Your task to perform on an android device: Open maps Image 0: 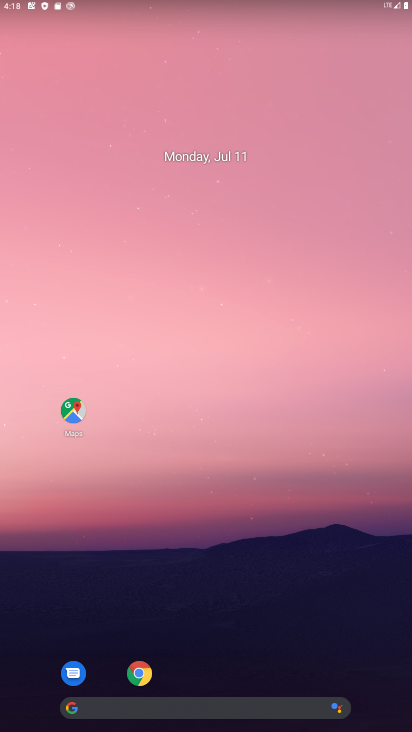
Step 0: click (71, 411)
Your task to perform on an android device: Open maps Image 1: 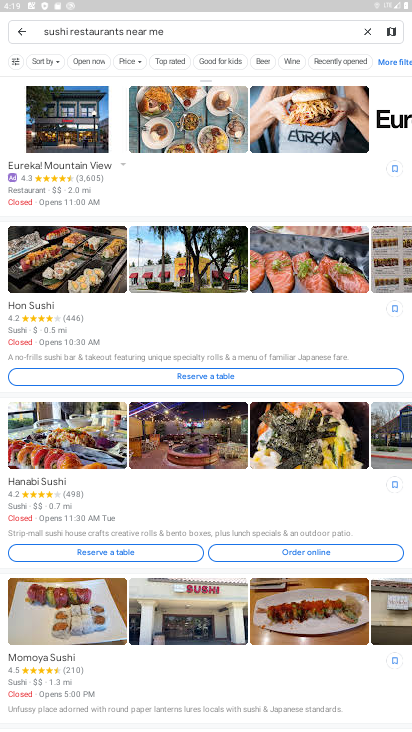
Step 1: click (369, 29)
Your task to perform on an android device: Open maps Image 2: 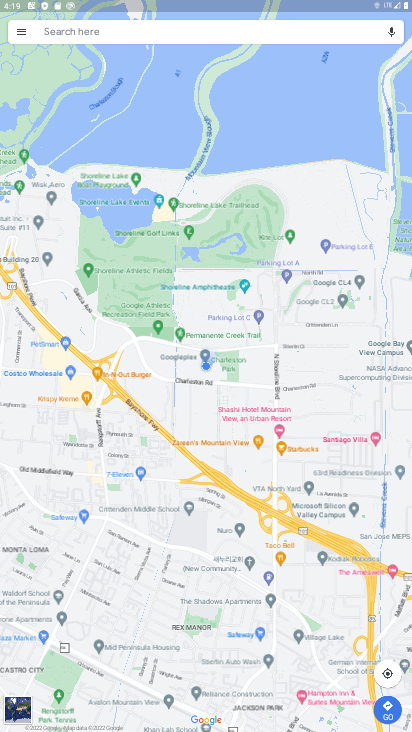
Step 2: task complete